Your task to perform on an android device: Open calendar and show me the third week of next month Image 0: 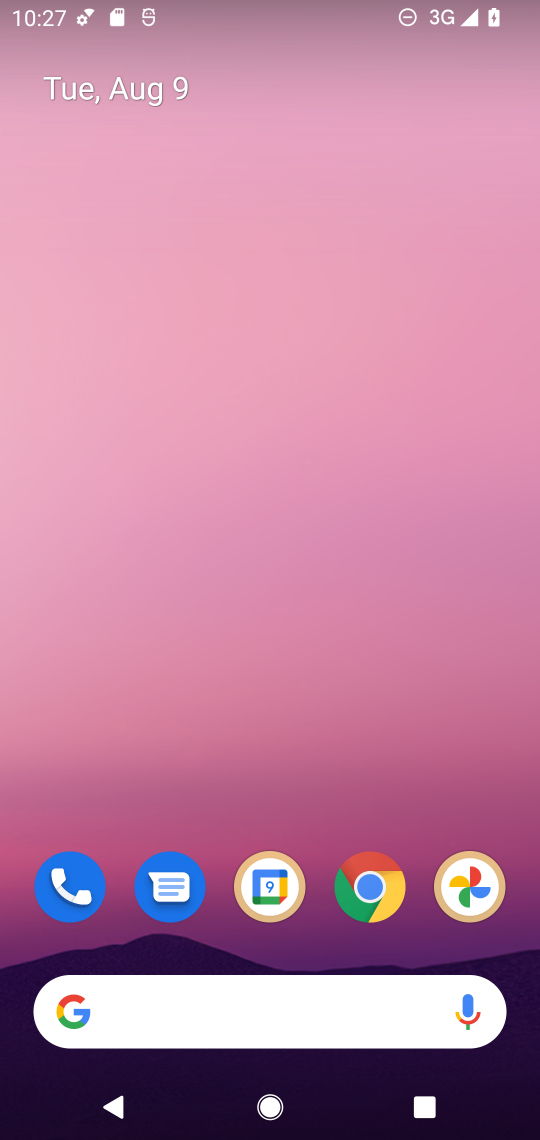
Step 0: drag from (334, 656) to (282, 120)
Your task to perform on an android device: Open calendar and show me the third week of next month Image 1: 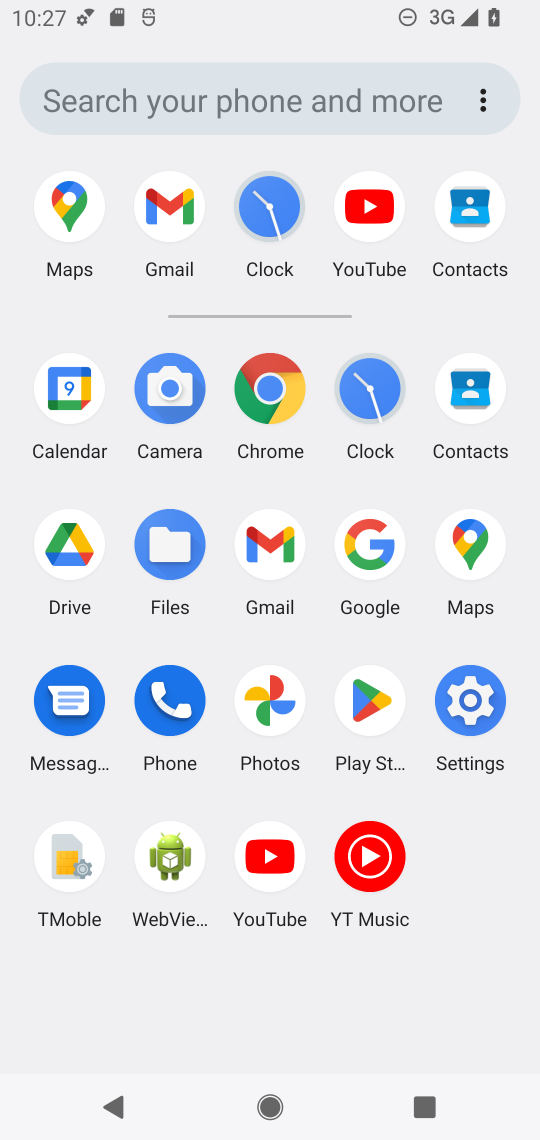
Step 1: click (84, 382)
Your task to perform on an android device: Open calendar and show me the third week of next month Image 2: 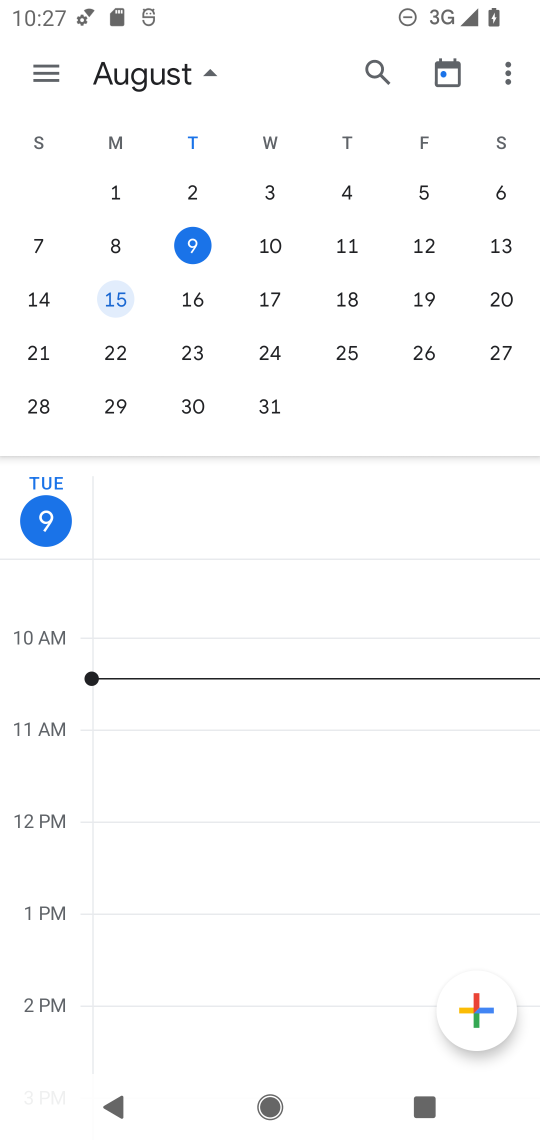
Step 2: drag from (439, 256) to (56, 258)
Your task to perform on an android device: Open calendar and show me the third week of next month Image 3: 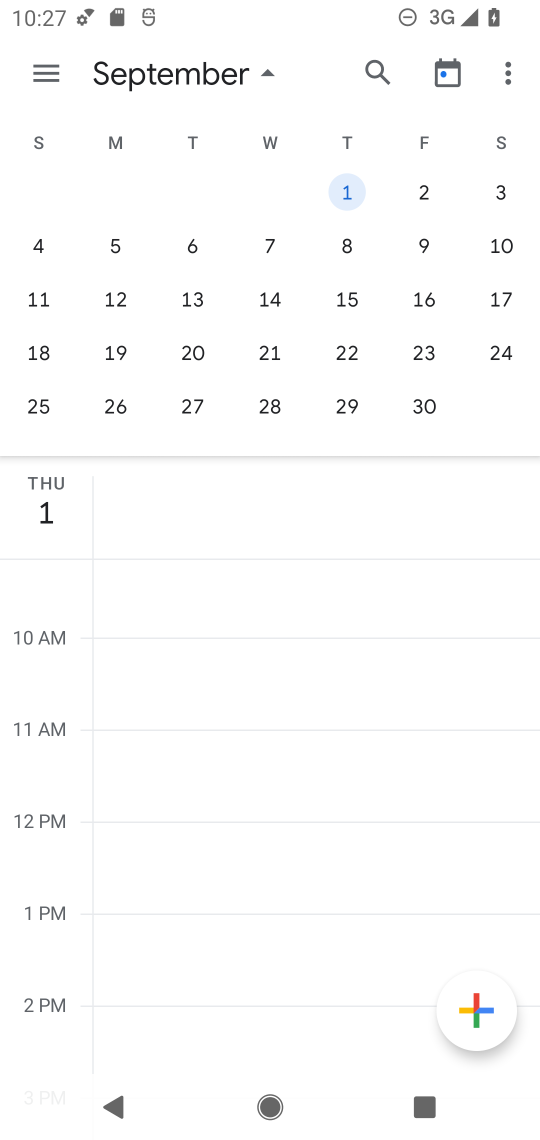
Step 3: click (32, 301)
Your task to perform on an android device: Open calendar and show me the third week of next month Image 4: 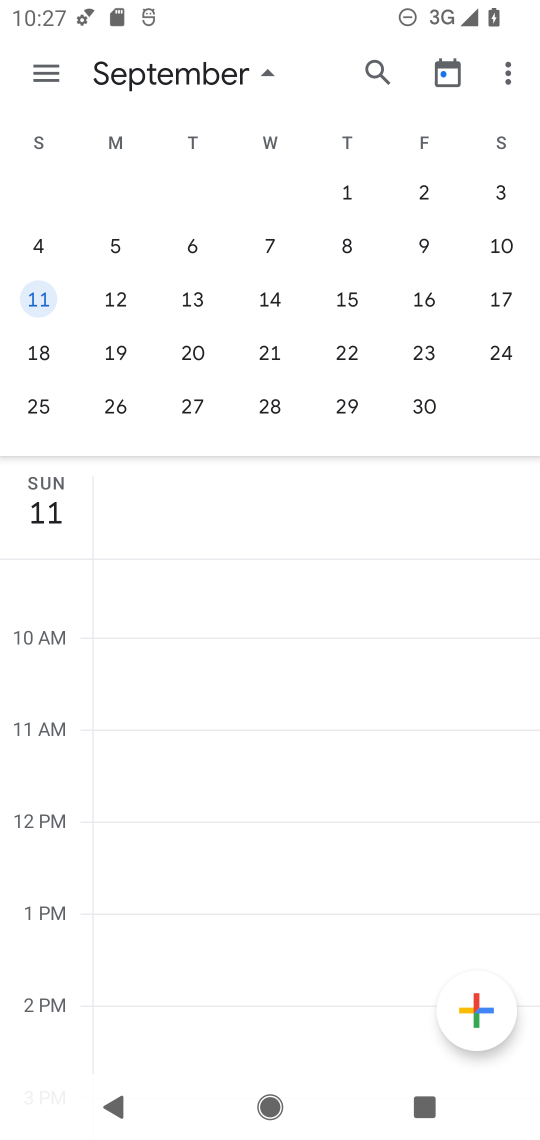
Step 4: task complete